Your task to perform on an android device: turn off wifi Image 0: 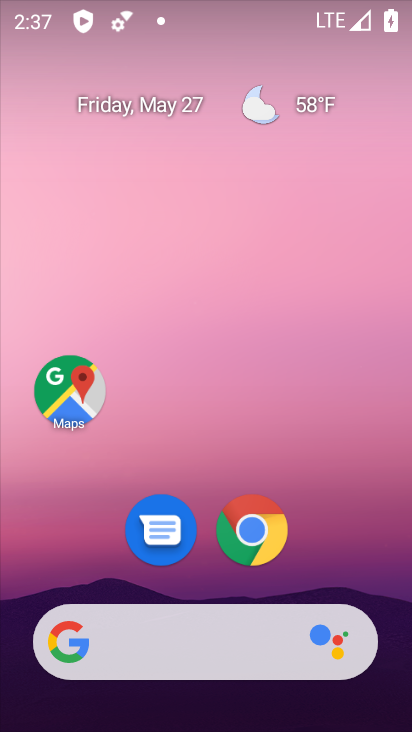
Step 0: drag from (92, 583) to (229, 86)
Your task to perform on an android device: turn off wifi Image 1: 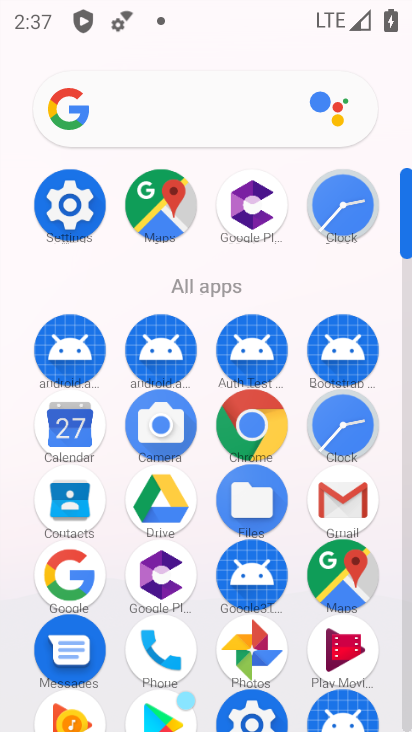
Step 1: drag from (173, 620) to (242, 353)
Your task to perform on an android device: turn off wifi Image 2: 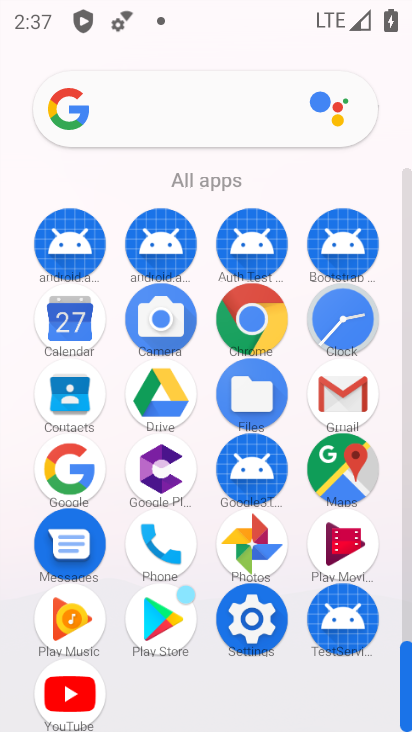
Step 2: click (245, 617)
Your task to perform on an android device: turn off wifi Image 3: 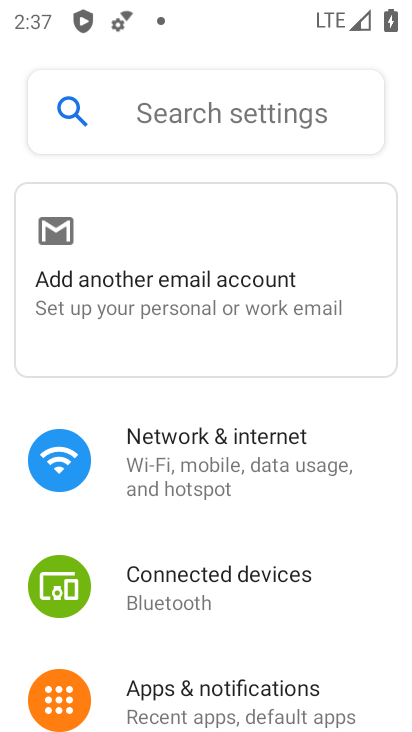
Step 3: click (261, 448)
Your task to perform on an android device: turn off wifi Image 4: 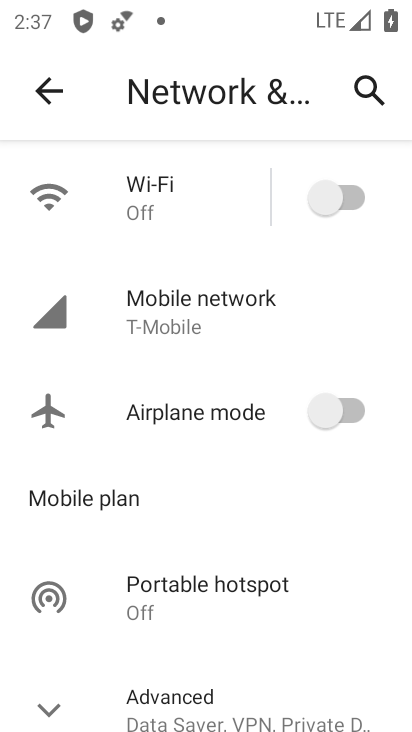
Step 4: task complete